Your task to perform on an android device: find snoozed emails in the gmail app Image 0: 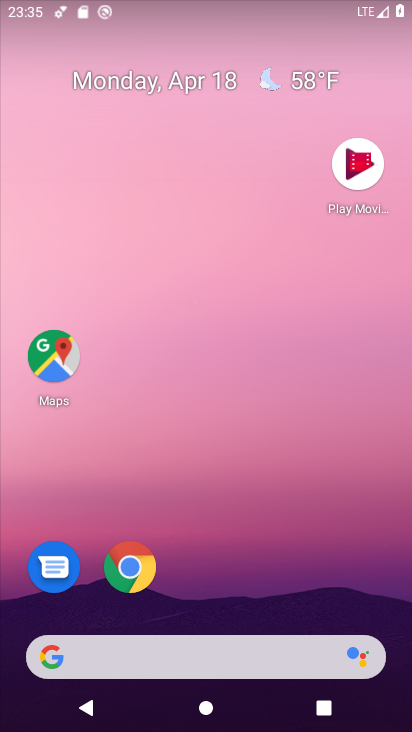
Step 0: drag from (263, 590) to (280, 67)
Your task to perform on an android device: find snoozed emails in the gmail app Image 1: 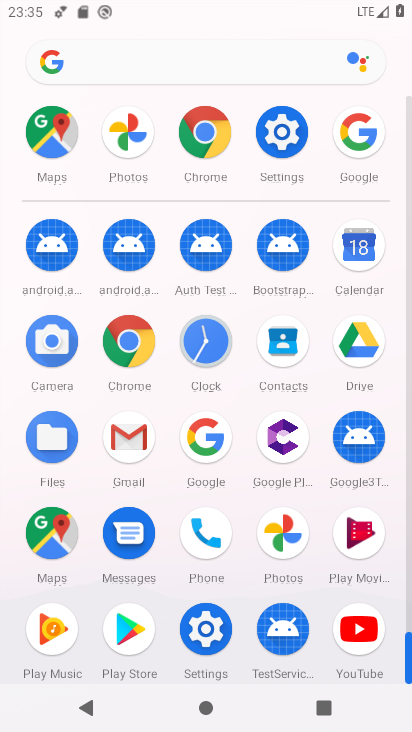
Step 1: click (135, 443)
Your task to perform on an android device: find snoozed emails in the gmail app Image 2: 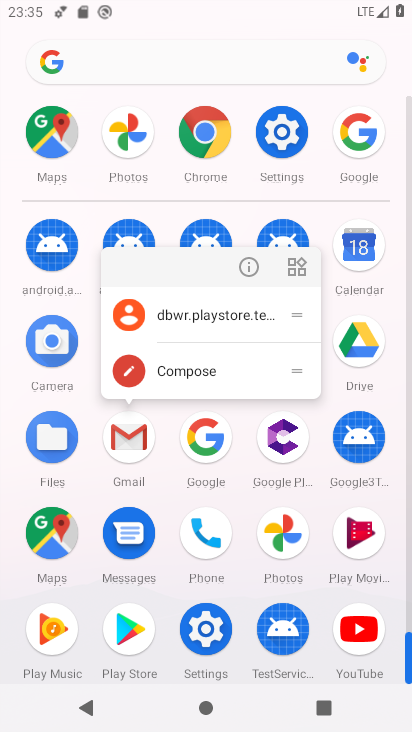
Step 2: click (249, 264)
Your task to perform on an android device: find snoozed emails in the gmail app Image 3: 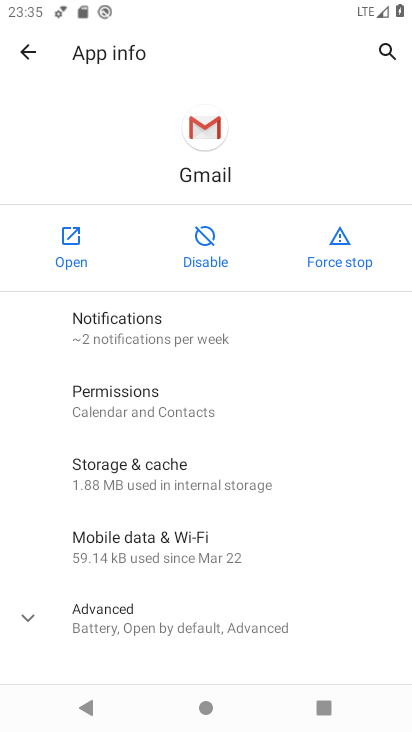
Step 3: click (70, 239)
Your task to perform on an android device: find snoozed emails in the gmail app Image 4: 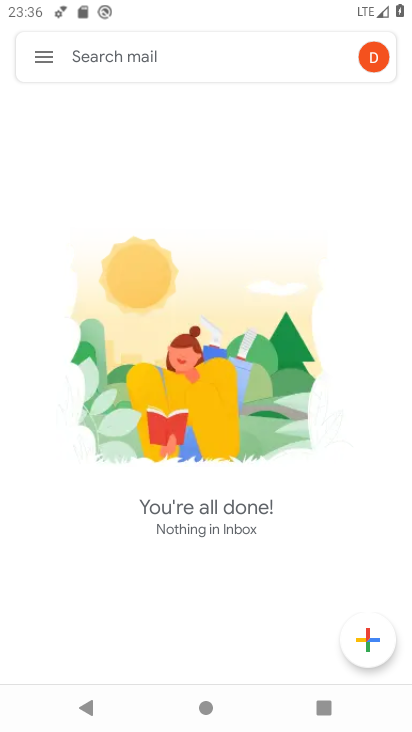
Step 4: drag from (297, 537) to (314, 232)
Your task to perform on an android device: find snoozed emails in the gmail app Image 5: 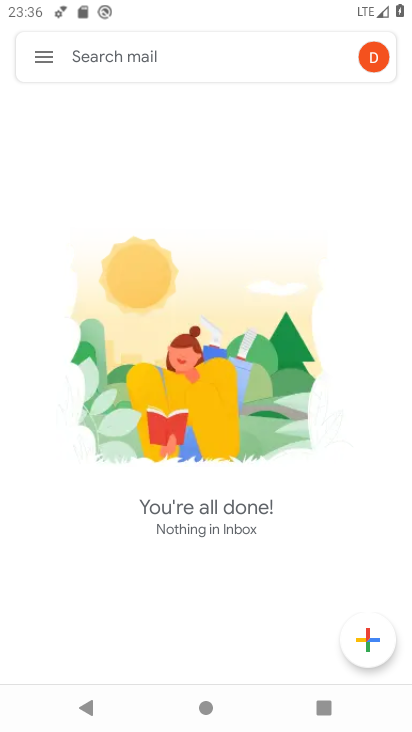
Step 5: click (41, 59)
Your task to perform on an android device: find snoozed emails in the gmail app Image 6: 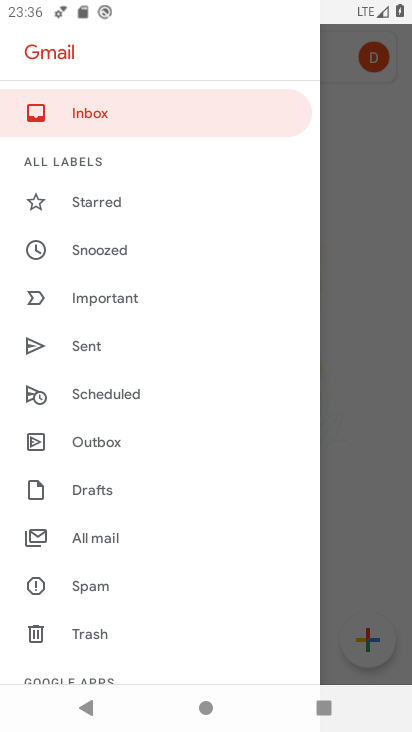
Step 6: click (106, 247)
Your task to perform on an android device: find snoozed emails in the gmail app Image 7: 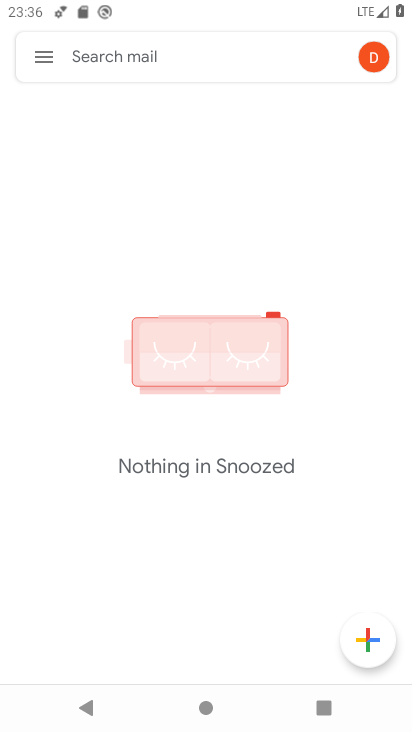
Step 7: task complete